Your task to perform on an android device: change the upload size in google photos Image 0: 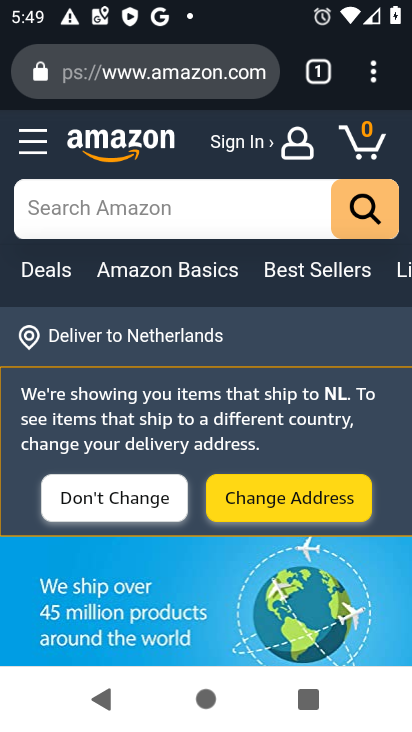
Step 0: press home button
Your task to perform on an android device: change the upload size in google photos Image 1: 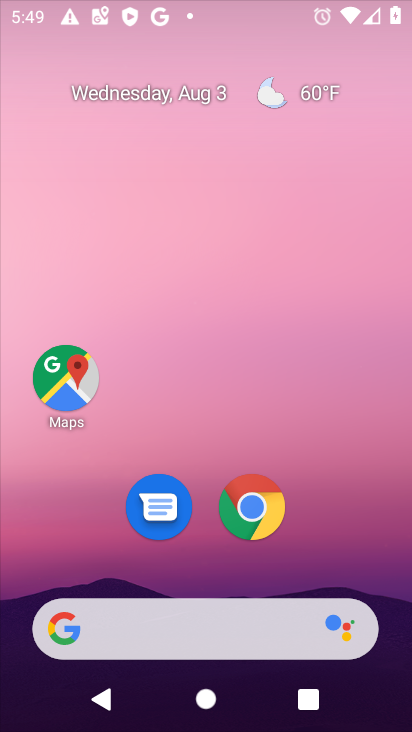
Step 1: drag from (353, 512) to (43, 43)
Your task to perform on an android device: change the upload size in google photos Image 2: 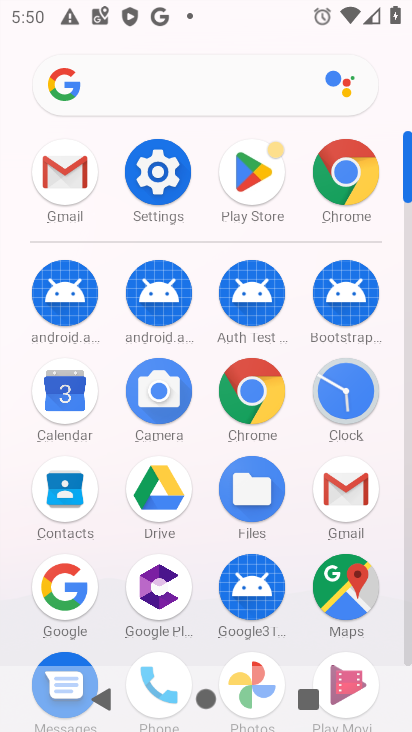
Step 2: drag from (299, 539) to (302, 167)
Your task to perform on an android device: change the upload size in google photos Image 3: 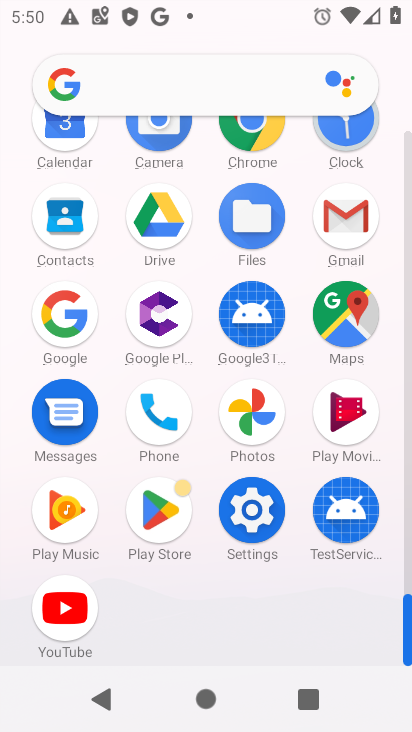
Step 3: click (252, 424)
Your task to perform on an android device: change the upload size in google photos Image 4: 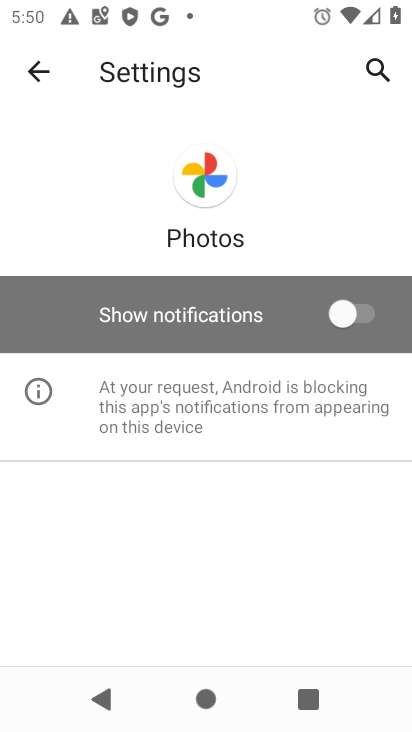
Step 4: task complete